Your task to perform on an android device: Open the web browser Image 0: 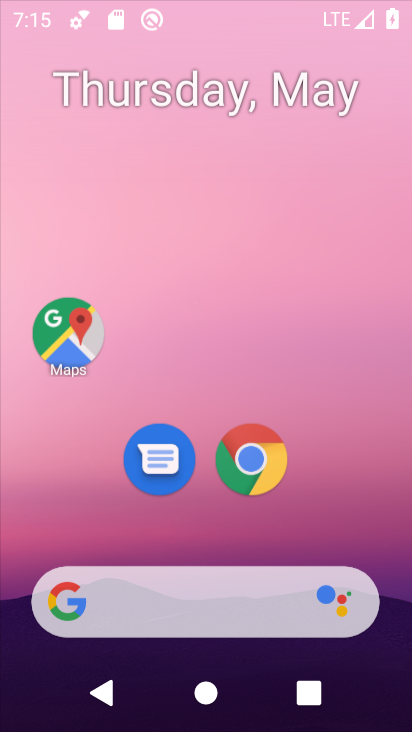
Step 0: drag from (326, 518) to (338, 16)
Your task to perform on an android device: Open the web browser Image 1: 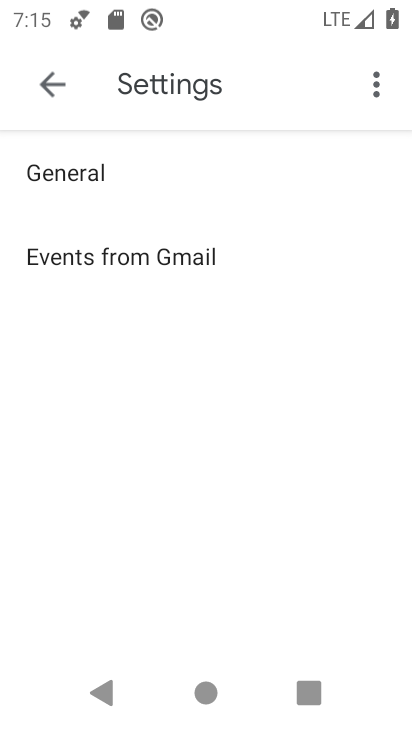
Step 1: click (205, 699)
Your task to perform on an android device: Open the web browser Image 2: 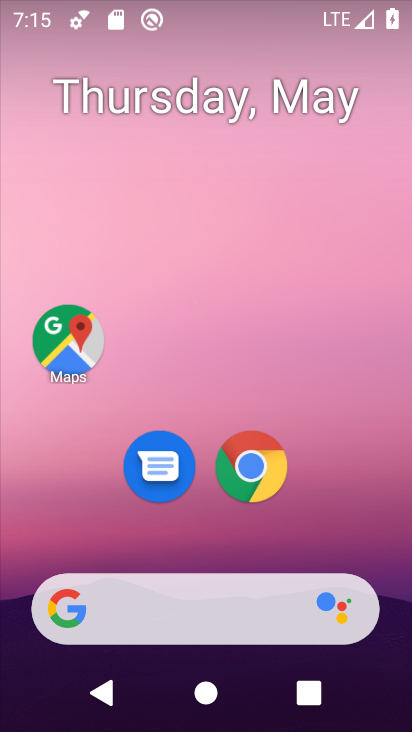
Step 2: click (59, 375)
Your task to perform on an android device: Open the web browser Image 3: 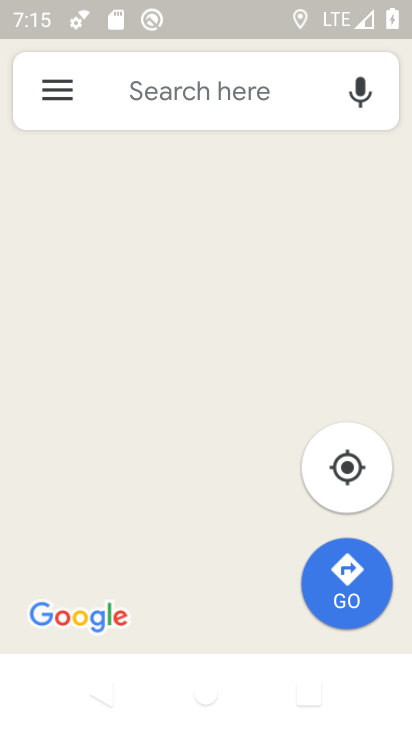
Step 3: click (223, 692)
Your task to perform on an android device: Open the web browser Image 4: 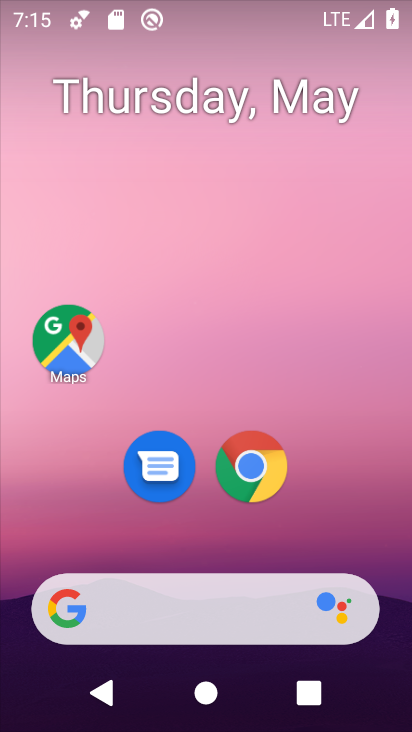
Step 4: click (248, 492)
Your task to perform on an android device: Open the web browser Image 5: 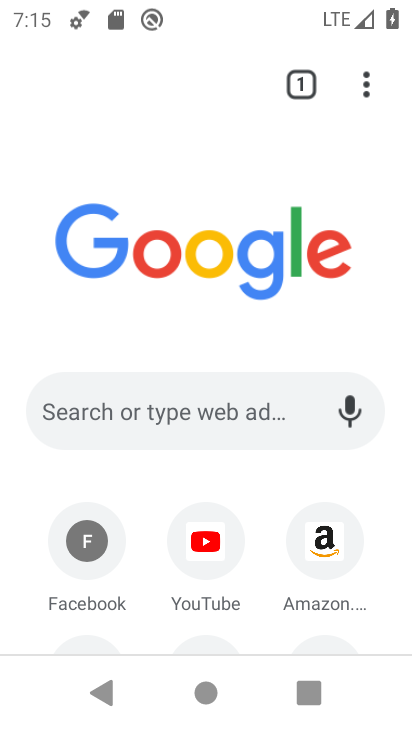
Step 5: task complete